Your task to perform on an android device: toggle show notifications on the lock screen Image 0: 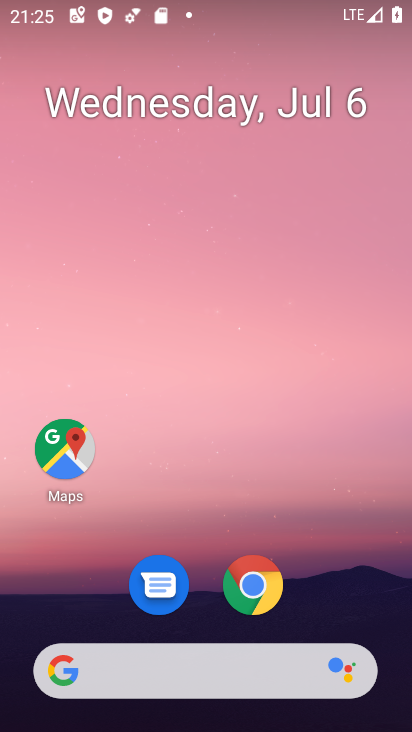
Step 0: drag from (212, 498) to (212, 61)
Your task to perform on an android device: toggle show notifications on the lock screen Image 1: 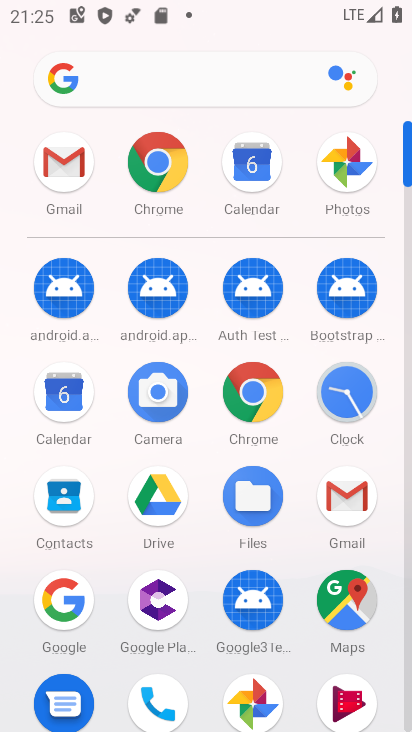
Step 1: drag from (197, 478) to (211, 158)
Your task to perform on an android device: toggle show notifications on the lock screen Image 2: 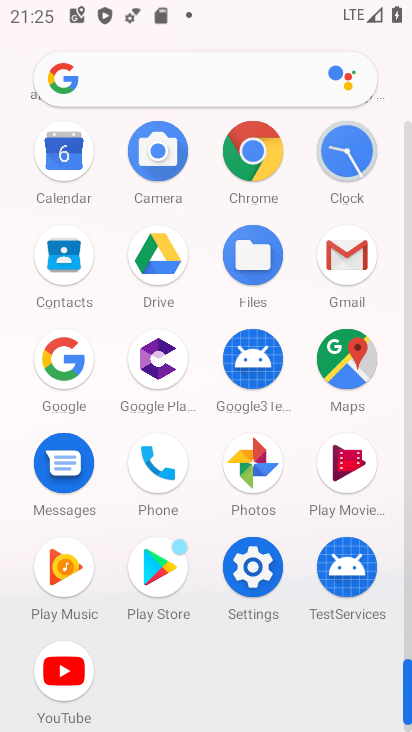
Step 2: drag from (209, 203) to (190, 426)
Your task to perform on an android device: toggle show notifications on the lock screen Image 3: 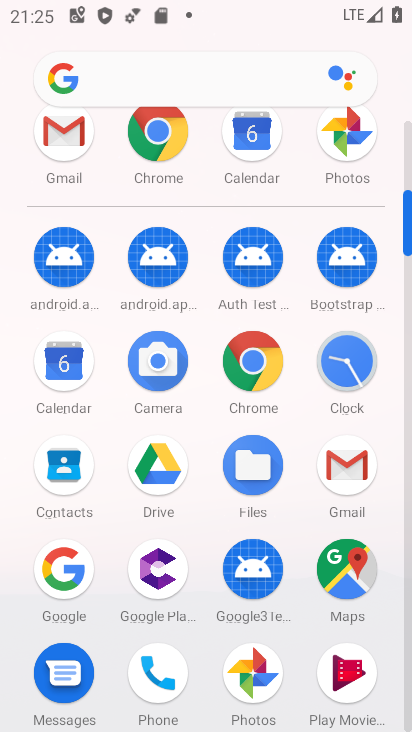
Step 3: drag from (192, 485) to (218, 158)
Your task to perform on an android device: toggle show notifications on the lock screen Image 4: 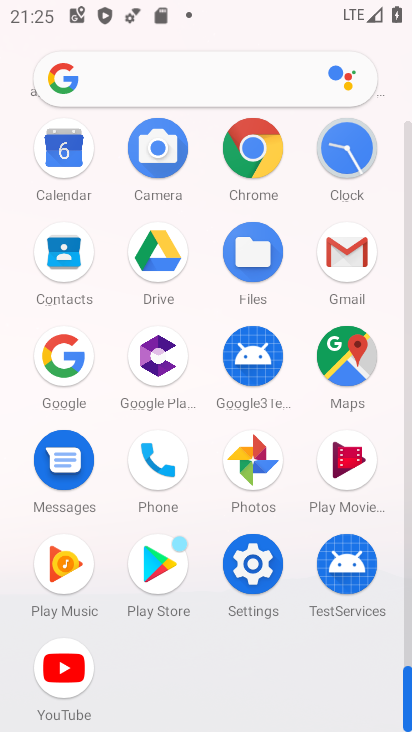
Step 4: click (252, 584)
Your task to perform on an android device: toggle show notifications on the lock screen Image 5: 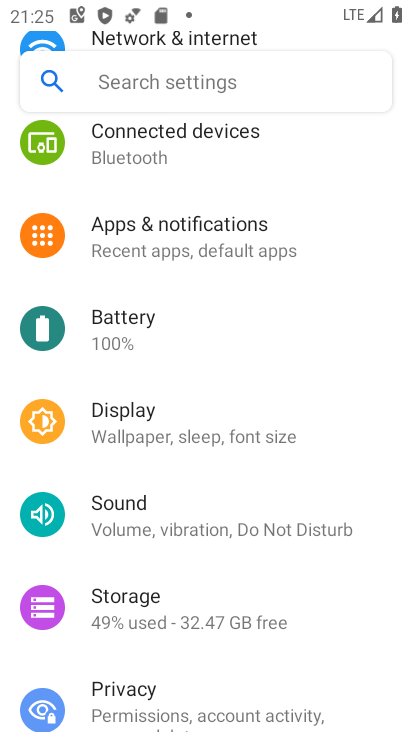
Step 5: click (248, 242)
Your task to perform on an android device: toggle show notifications on the lock screen Image 6: 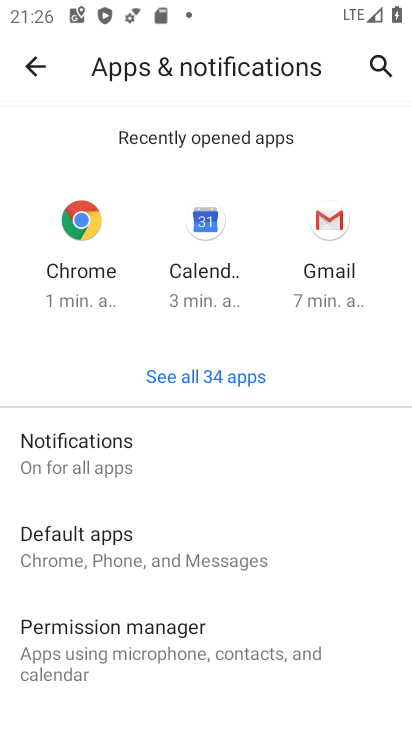
Step 6: click (99, 457)
Your task to perform on an android device: toggle show notifications on the lock screen Image 7: 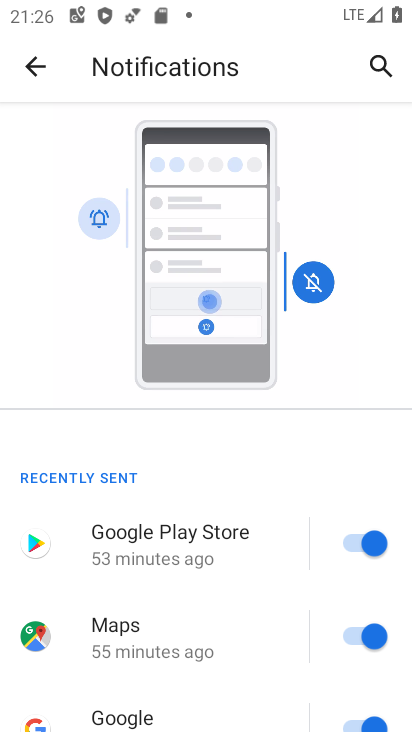
Step 7: drag from (211, 630) to (243, 170)
Your task to perform on an android device: toggle show notifications on the lock screen Image 8: 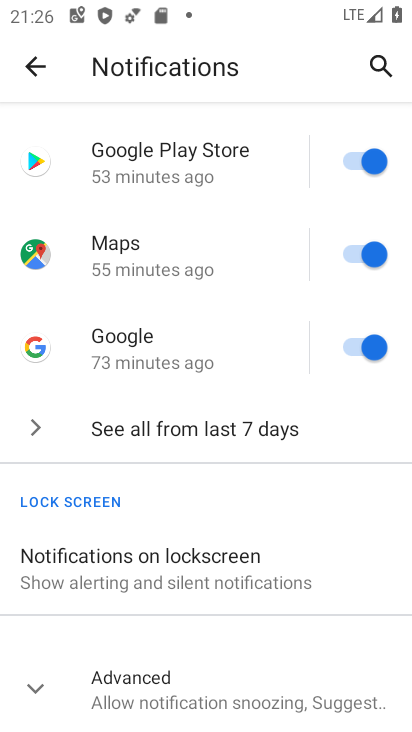
Step 8: click (208, 580)
Your task to perform on an android device: toggle show notifications on the lock screen Image 9: 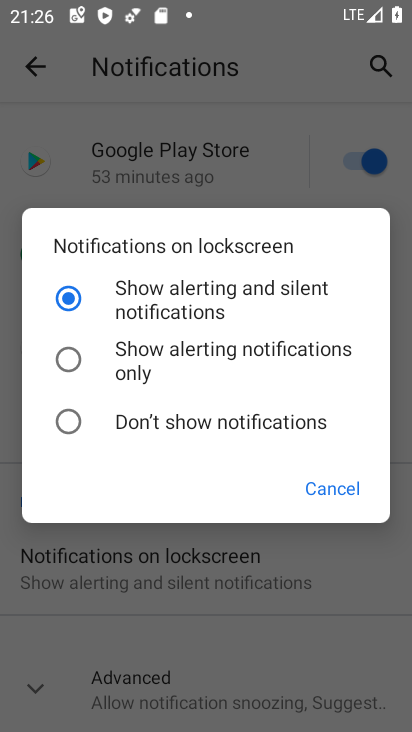
Step 9: click (73, 421)
Your task to perform on an android device: toggle show notifications on the lock screen Image 10: 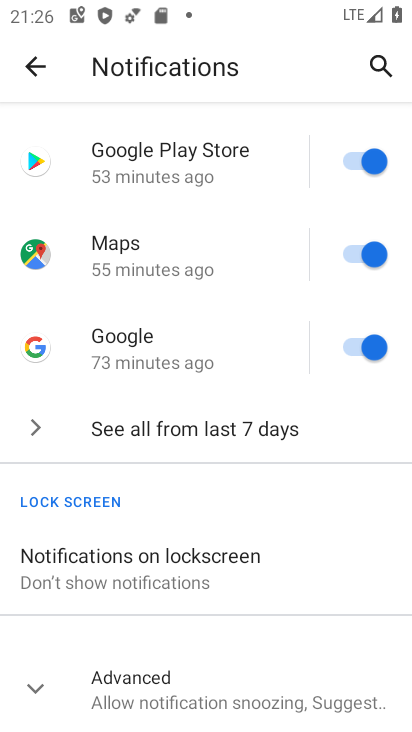
Step 10: task complete